Your task to perform on an android device: allow notifications from all sites in the chrome app Image 0: 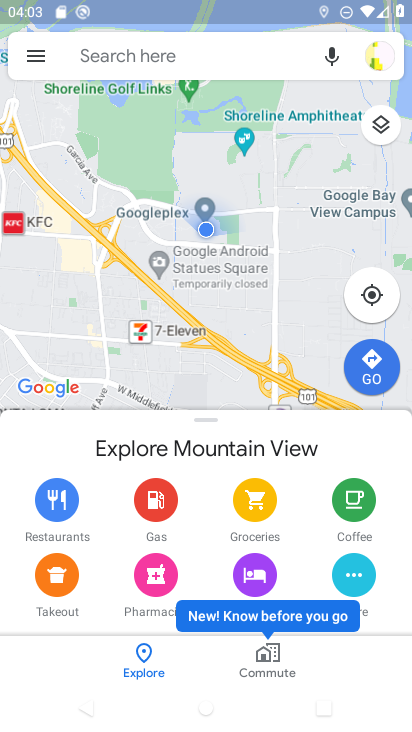
Step 0: press home button
Your task to perform on an android device: allow notifications from all sites in the chrome app Image 1: 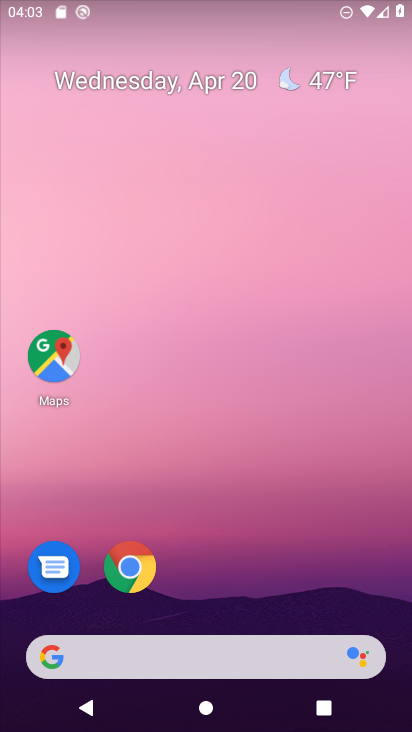
Step 1: click (127, 571)
Your task to perform on an android device: allow notifications from all sites in the chrome app Image 2: 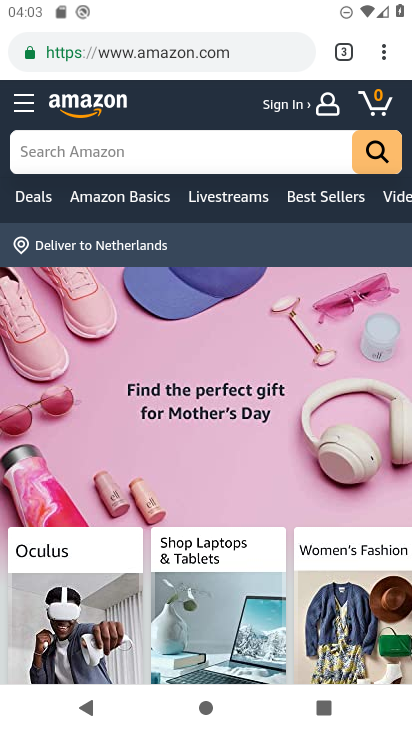
Step 2: click (386, 57)
Your task to perform on an android device: allow notifications from all sites in the chrome app Image 3: 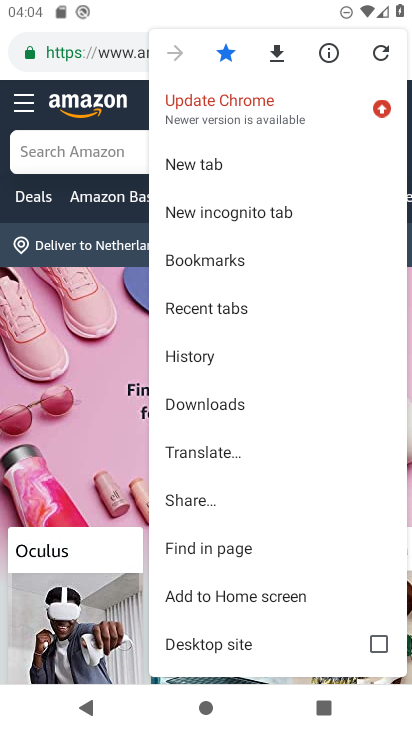
Step 3: drag from (189, 536) to (192, 194)
Your task to perform on an android device: allow notifications from all sites in the chrome app Image 4: 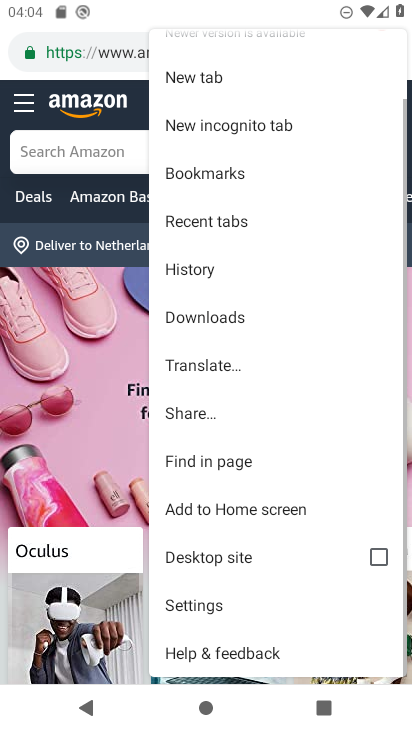
Step 4: click (205, 605)
Your task to perform on an android device: allow notifications from all sites in the chrome app Image 5: 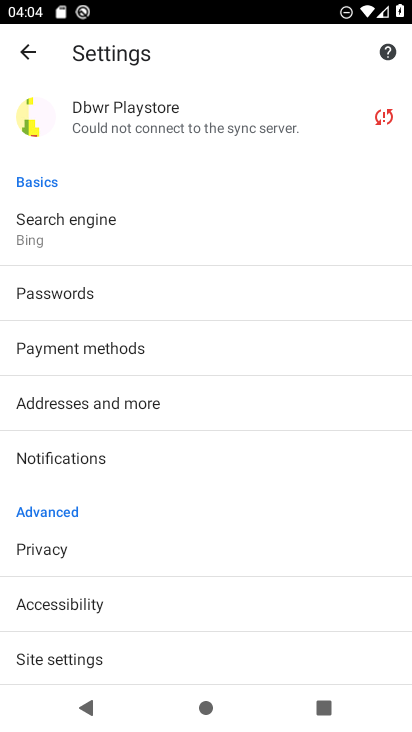
Step 5: drag from (132, 659) to (122, 243)
Your task to perform on an android device: allow notifications from all sites in the chrome app Image 6: 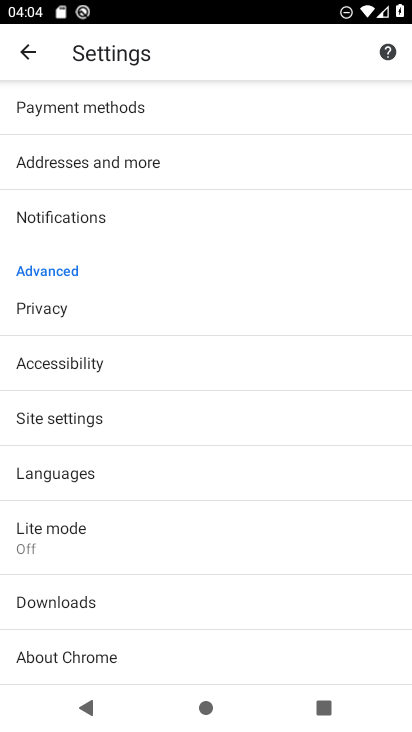
Step 6: click (143, 222)
Your task to perform on an android device: allow notifications from all sites in the chrome app Image 7: 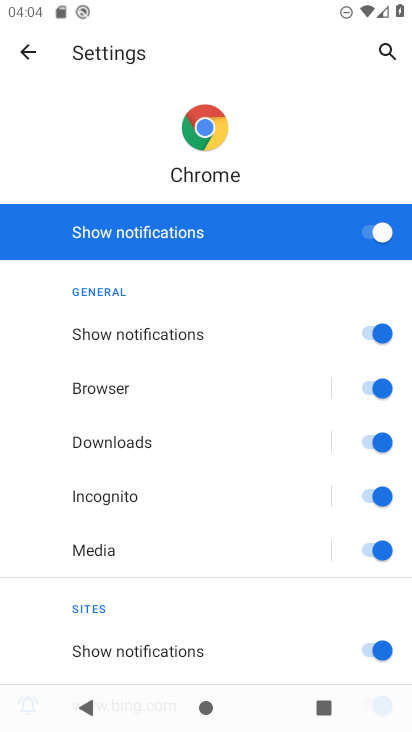
Step 7: task complete